Your task to perform on an android device: Empty the shopping cart on costco.com. Add "logitech g502" to the cart on costco.com, then select checkout. Image 0: 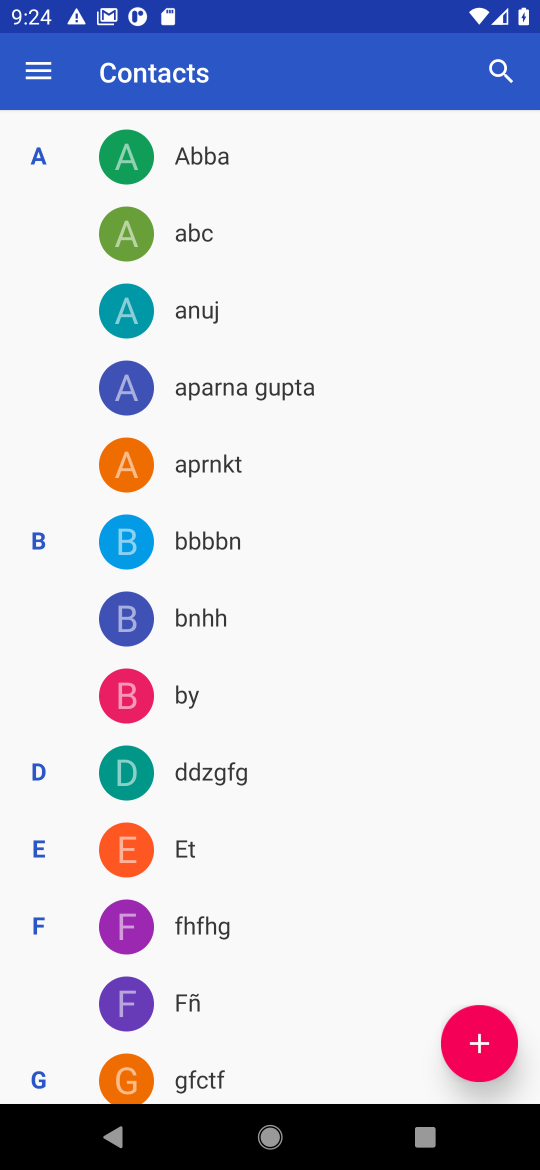
Step 0: press home button
Your task to perform on an android device: Empty the shopping cart on costco.com. Add "logitech g502" to the cart on costco.com, then select checkout. Image 1: 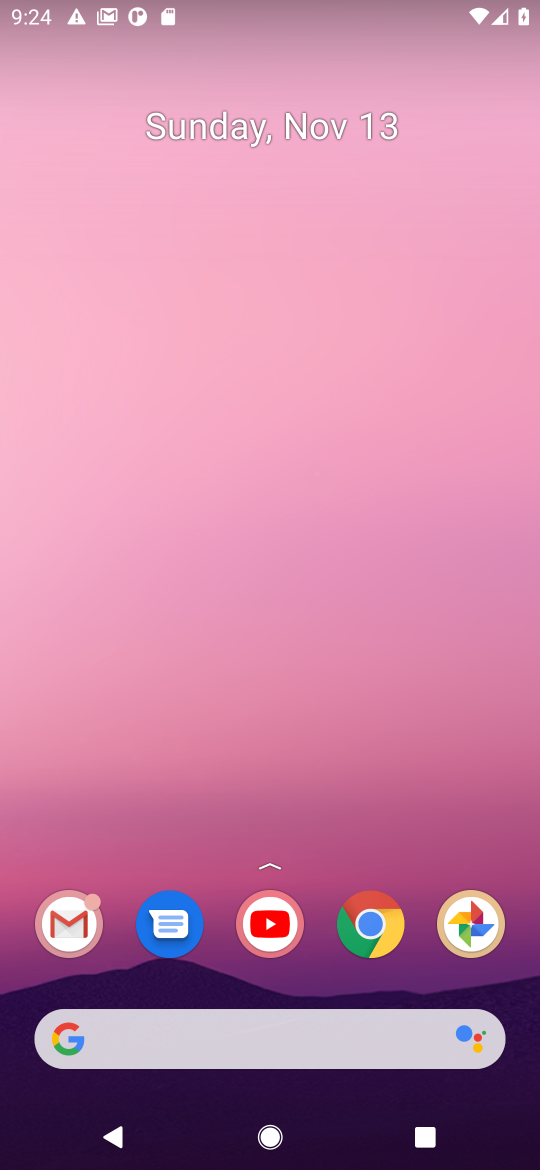
Step 1: click (365, 931)
Your task to perform on an android device: Empty the shopping cart on costco.com. Add "logitech g502" to the cart on costco.com, then select checkout. Image 2: 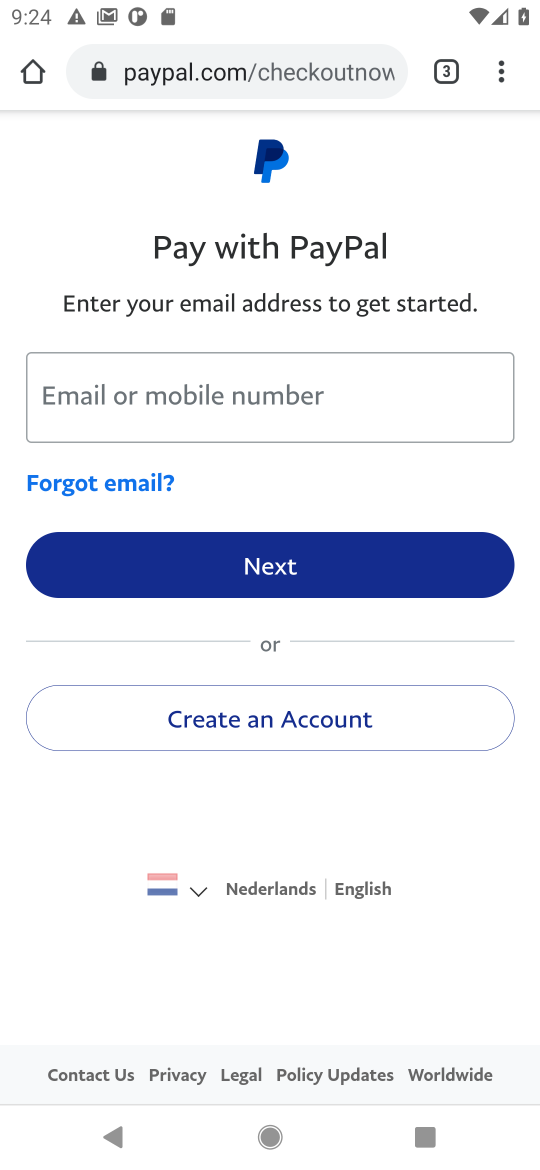
Step 2: click (181, 72)
Your task to perform on an android device: Empty the shopping cart on costco.com. Add "logitech g502" to the cart on costco.com, then select checkout. Image 3: 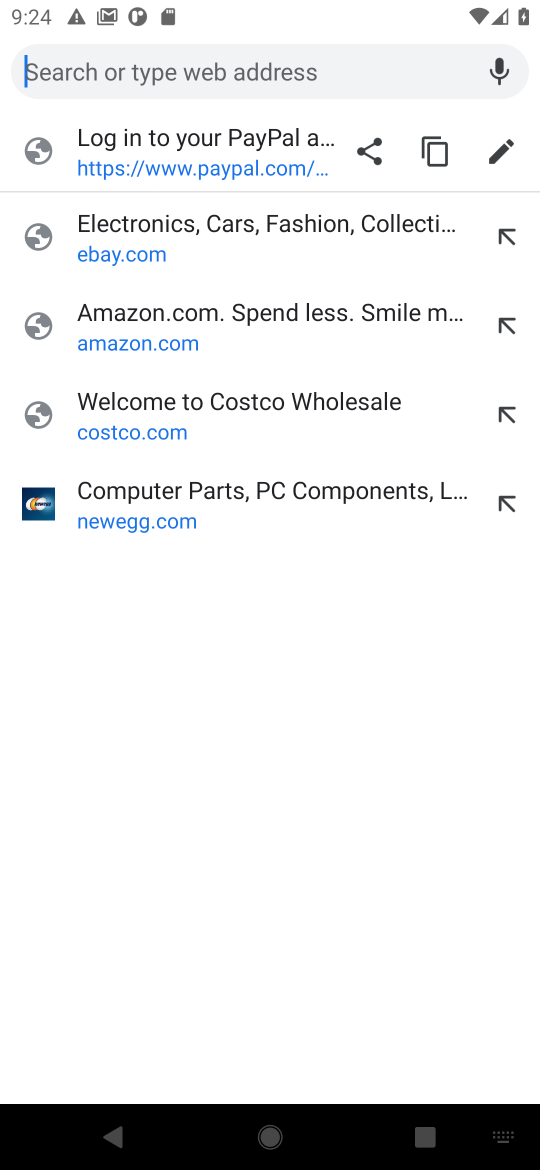
Step 3: click (134, 421)
Your task to perform on an android device: Empty the shopping cart on costco.com. Add "logitech g502" to the cart on costco.com, then select checkout. Image 4: 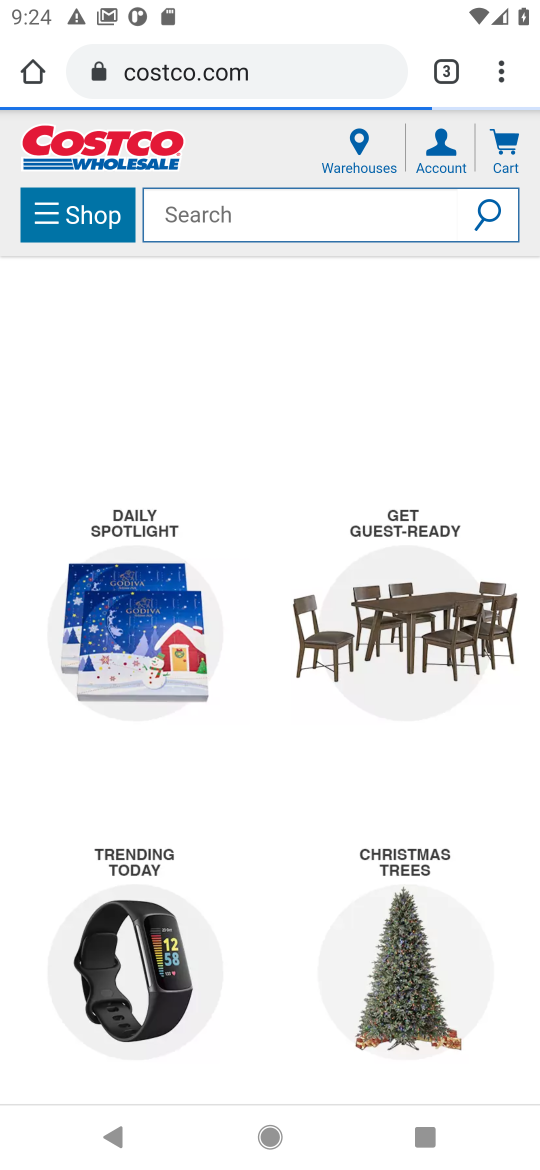
Step 4: click (514, 158)
Your task to perform on an android device: Empty the shopping cart on costco.com. Add "logitech g502" to the cart on costco.com, then select checkout. Image 5: 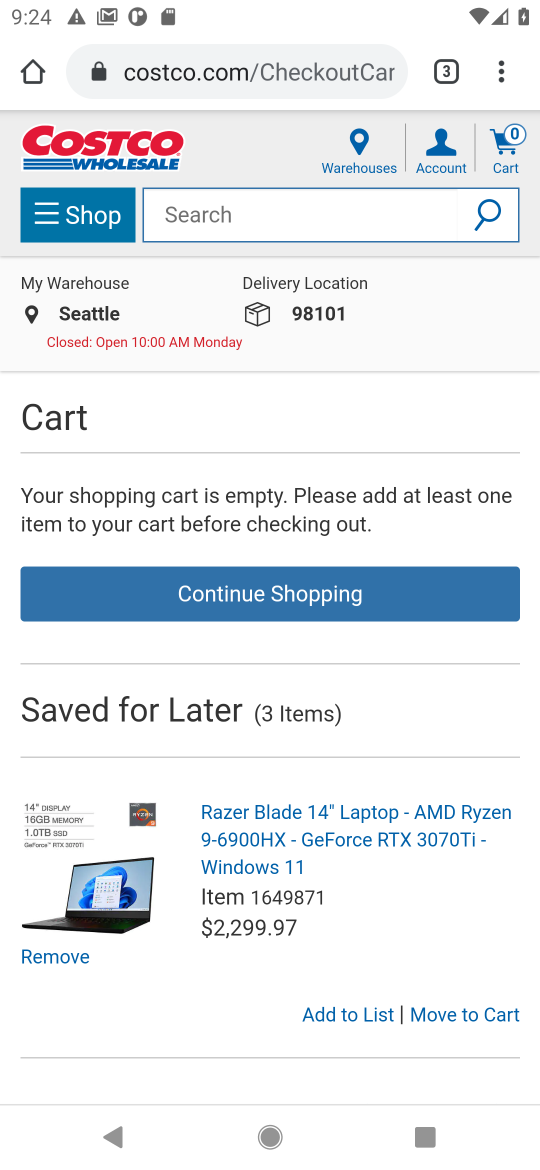
Step 5: click (229, 225)
Your task to perform on an android device: Empty the shopping cart on costco.com. Add "logitech g502" to the cart on costco.com, then select checkout. Image 6: 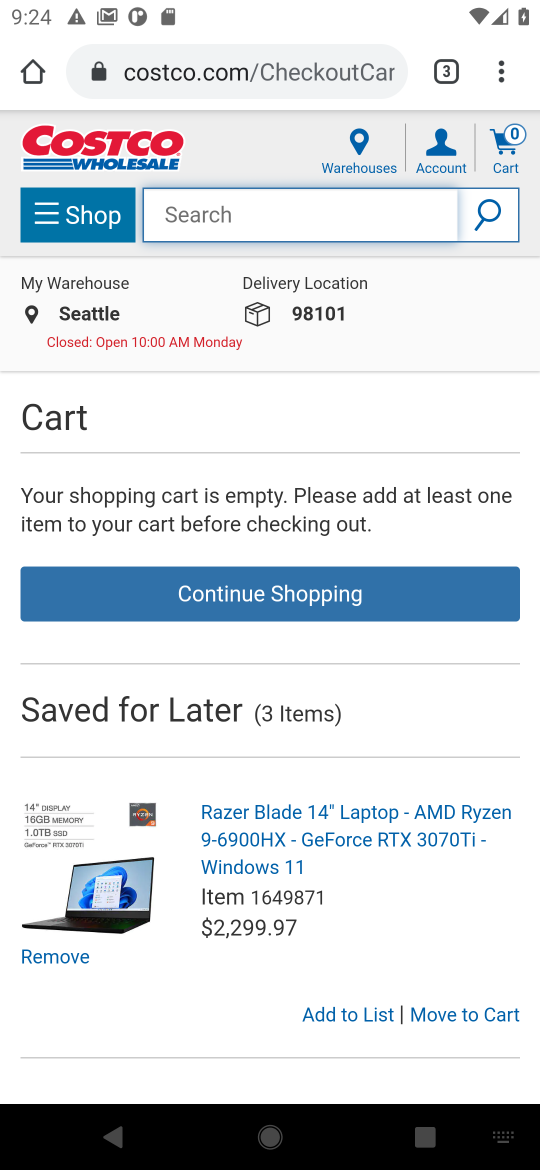
Step 6: type "logitech g502"
Your task to perform on an android device: Empty the shopping cart on costco.com. Add "logitech g502" to the cart on costco.com, then select checkout. Image 7: 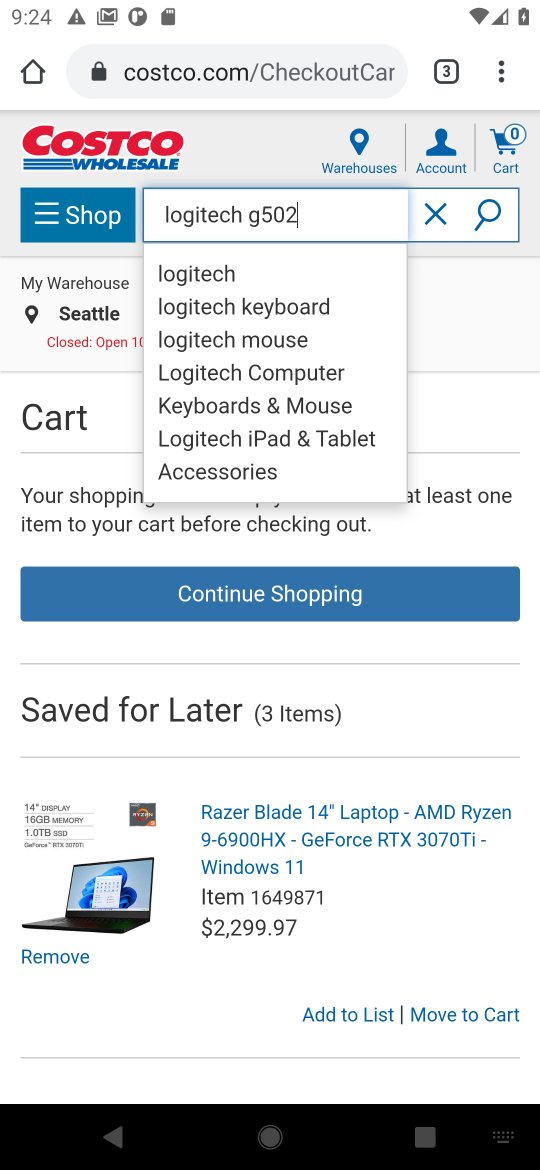
Step 7: click (485, 211)
Your task to perform on an android device: Empty the shopping cart on costco.com. Add "logitech g502" to the cart on costco.com, then select checkout. Image 8: 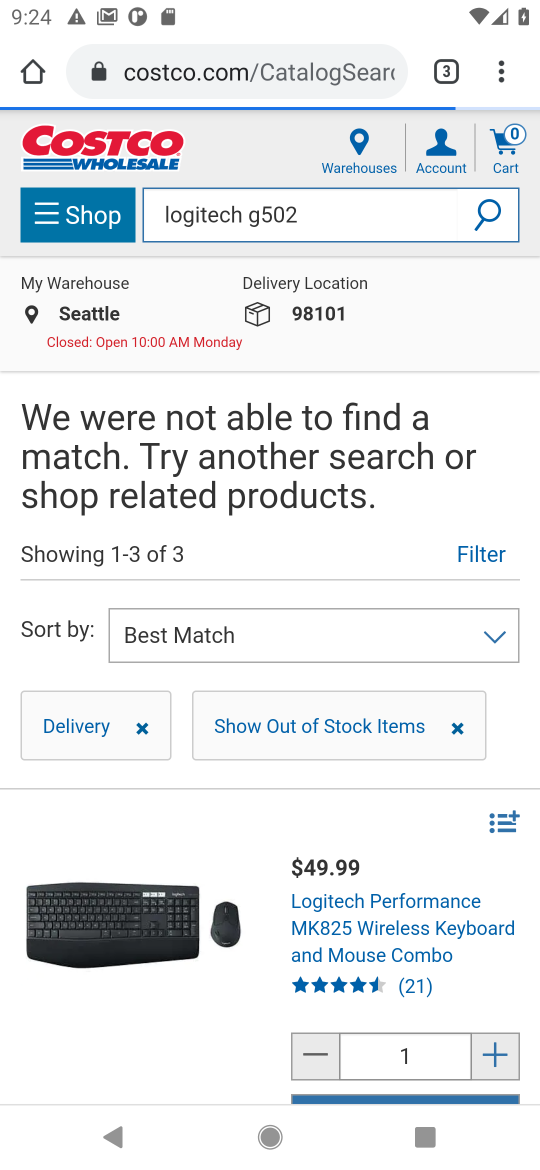
Step 8: task complete